Your task to perform on an android device: Go to battery settings Image 0: 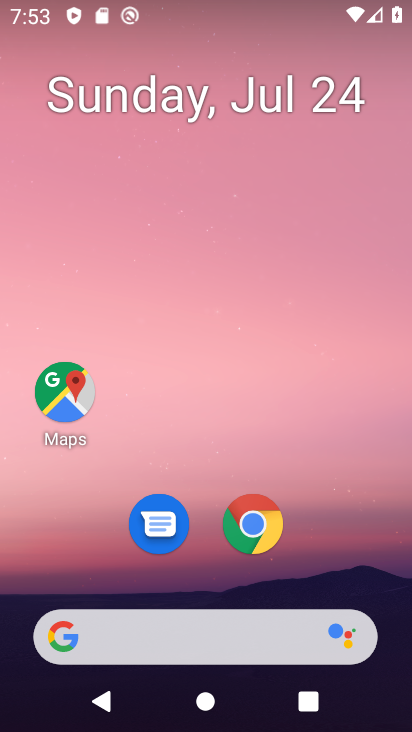
Step 0: press home button
Your task to perform on an android device: Go to battery settings Image 1: 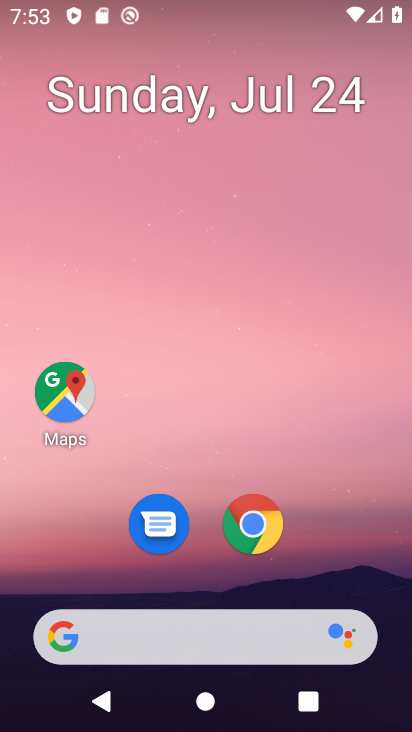
Step 1: drag from (198, 635) to (330, 139)
Your task to perform on an android device: Go to battery settings Image 2: 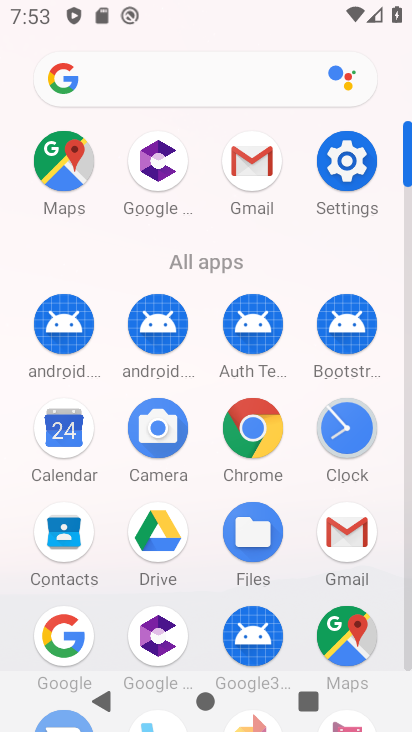
Step 2: click (352, 168)
Your task to perform on an android device: Go to battery settings Image 3: 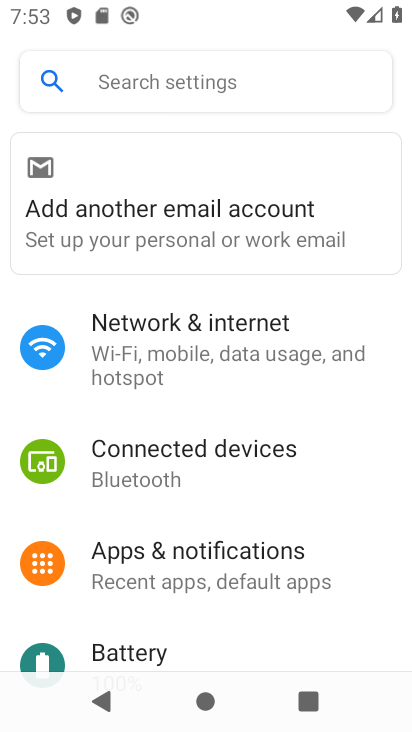
Step 3: drag from (212, 630) to (361, 252)
Your task to perform on an android device: Go to battery settings Image 4: 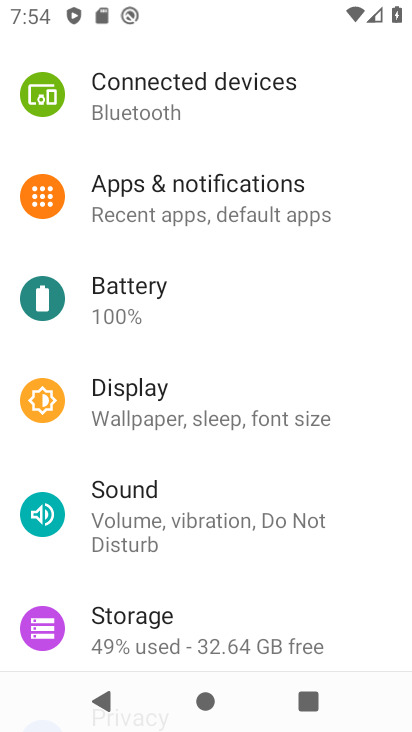
Step 4: click (138, 292)
Your task to perform on an android device: Go to battery settings Image 5: 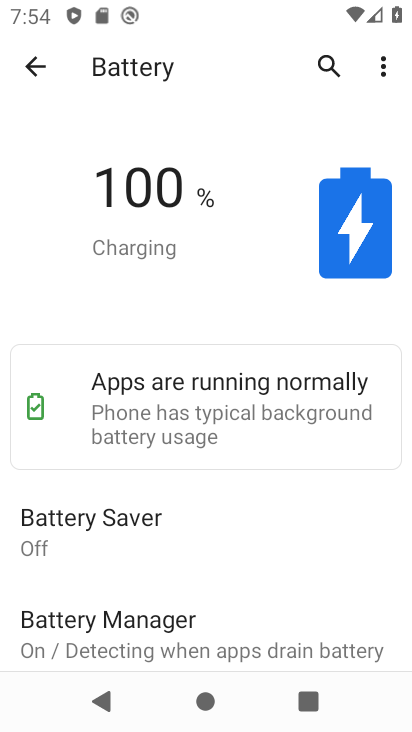
Step 5: task complete